Your task to perform on an android device: turn off picture-in-picture Image 0: 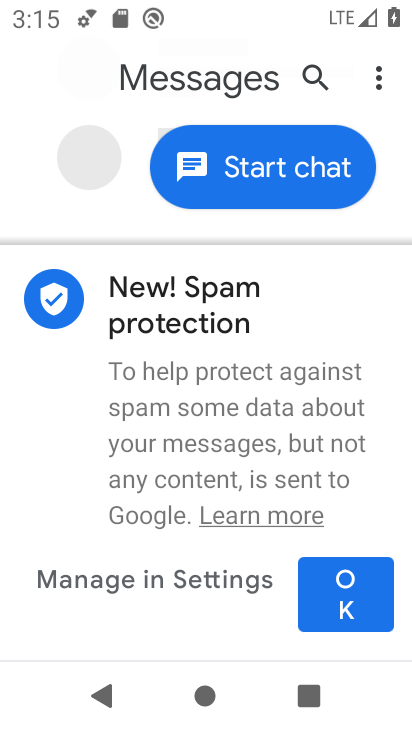
Step 0: press home button
Your task to perform on an android device: turn off picture-in-picture Image 1: 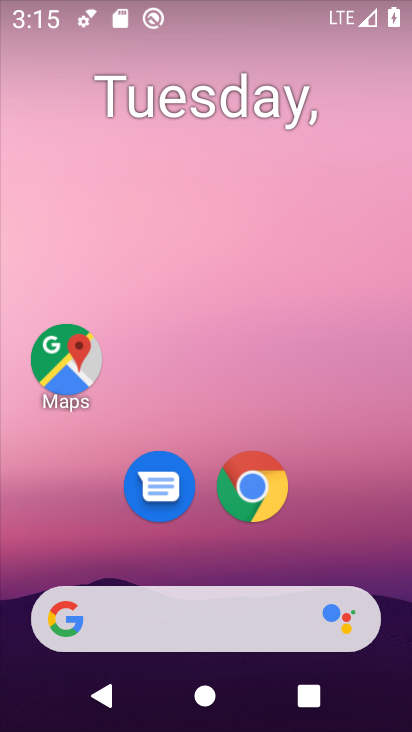
Step 1: click (252, 495)
Your task to perform on an android device: turn off picture-in-picture Image 2: 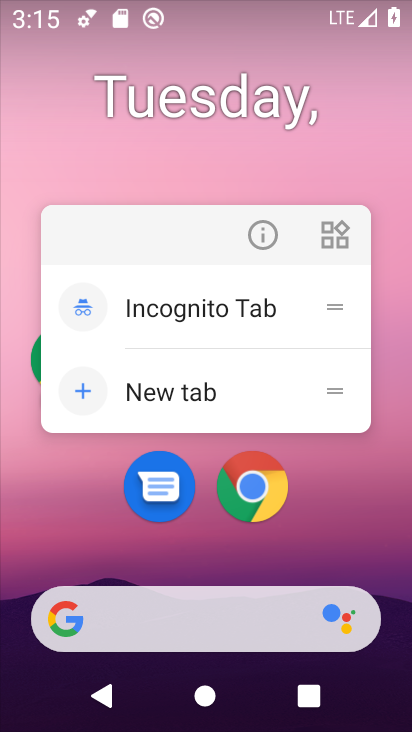
Step 2: click (263, 240)
Your task to perform on an android device: turn off picture-in-picture Image 3: 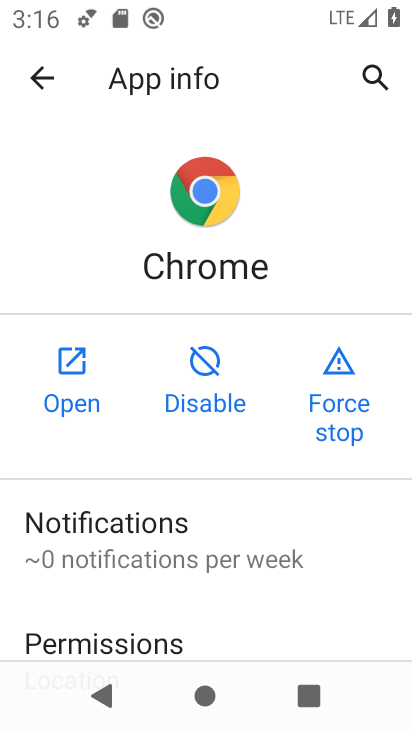
Step 3: drag from (207, 598) to (253, 124)
Your task to perform on an android device: turn off picture-in-picture Image 4: 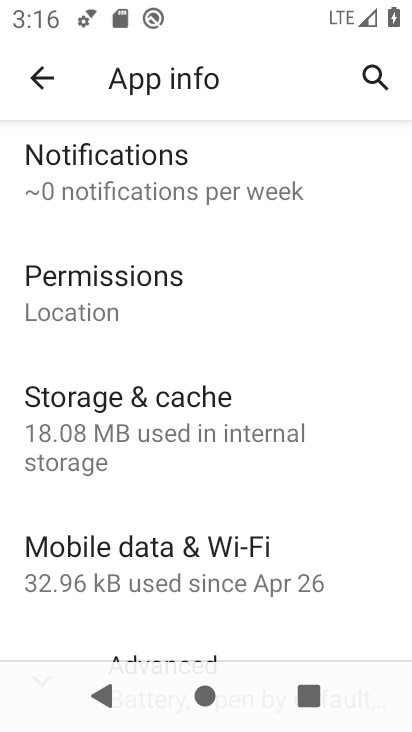
Step 4: drag from (165, 583) to (161, 270)
Your task to perform on an android device: turn off picture-in-picture Image 5: 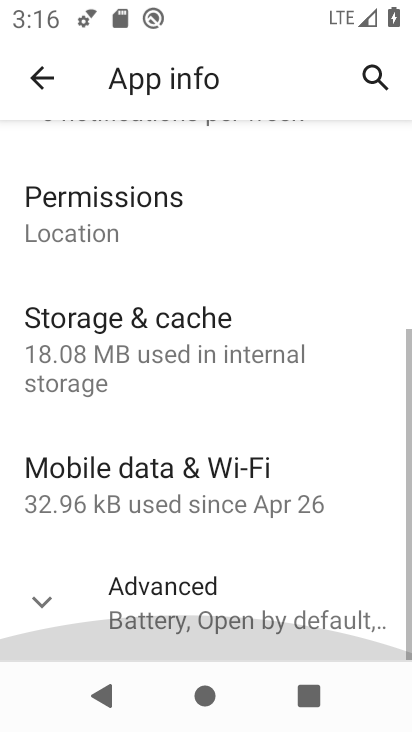
Step 5: click (159, 211)
Your task to perform on an android device: turn off picture-in-picture Image 6: 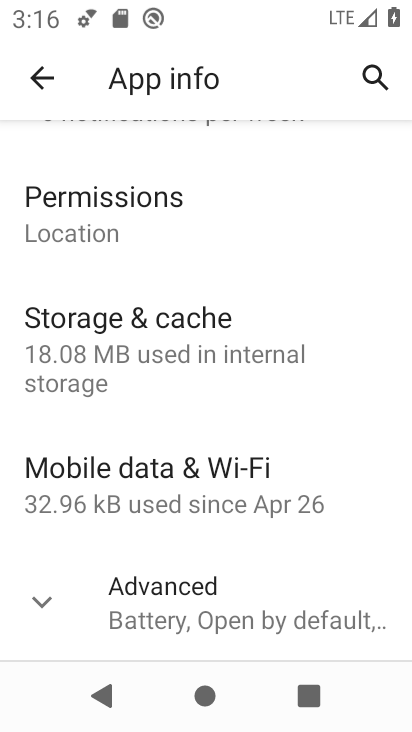
Step 6: click (47, 610)
Your task to perform on an android device: turn off picture-in-picture Image 7: 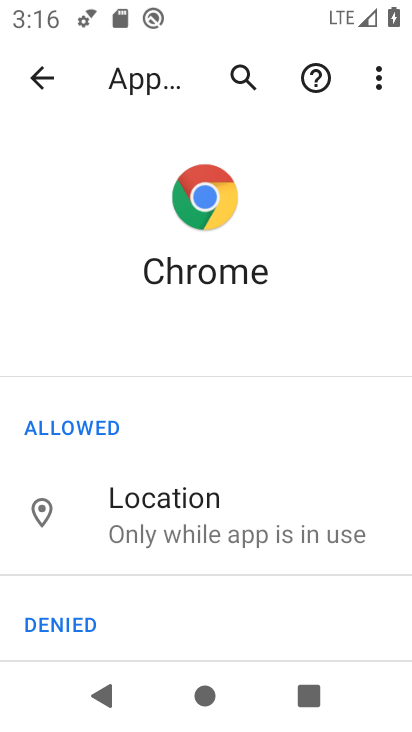
Step 7: task complete